Your task to perform on an android device: set the timer Image 0: 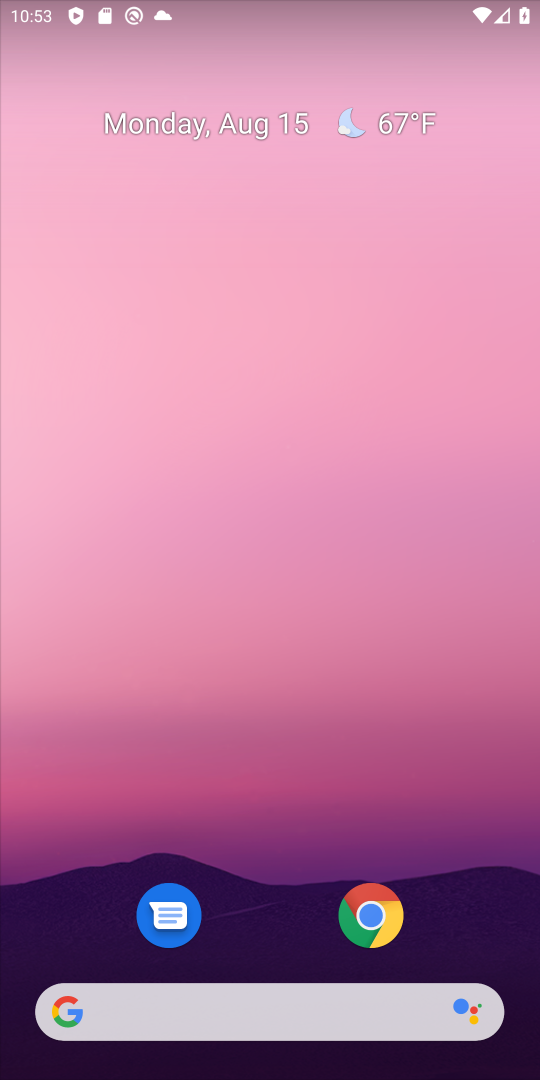
Step 0: drag from (284, 788) to (262, 0)
Your task to perform on an android device: set the timer Image 1: 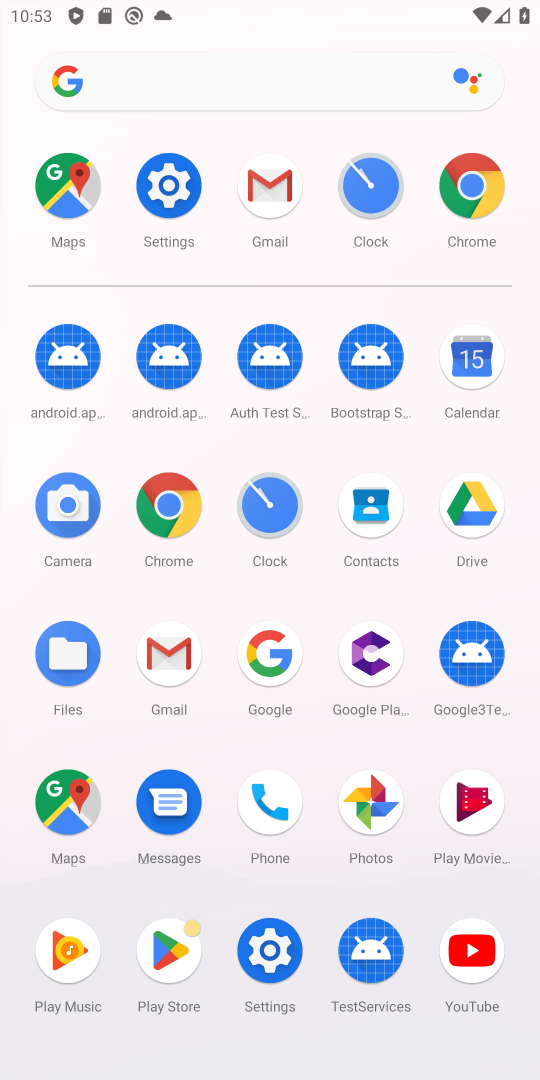
Step 1: click (274, 503)
Your task to perform on an android device: set the timer Image 2: 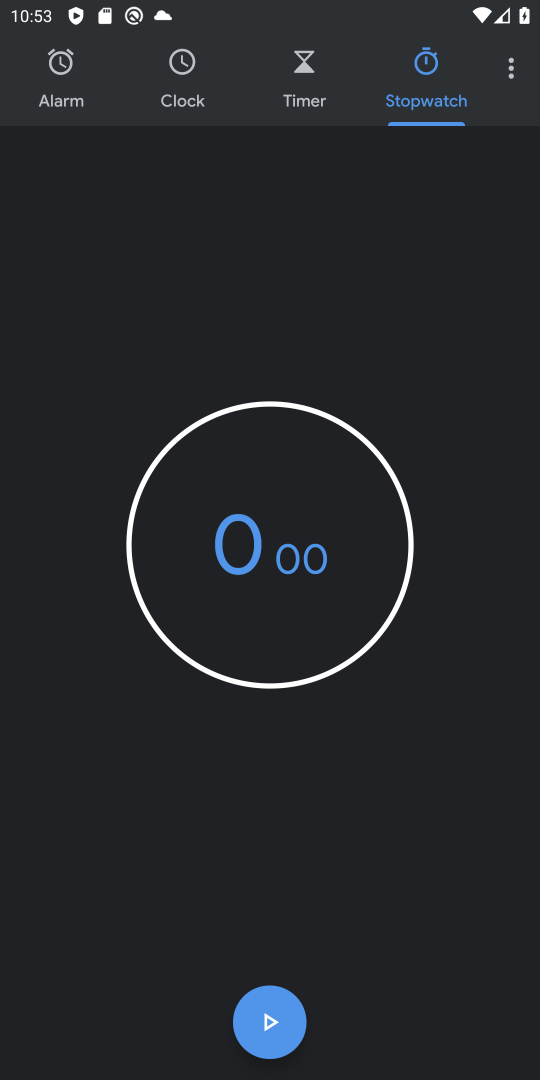
Step 2: click (299, 85)
Your task to perform on an android device: set the timer Image 3: 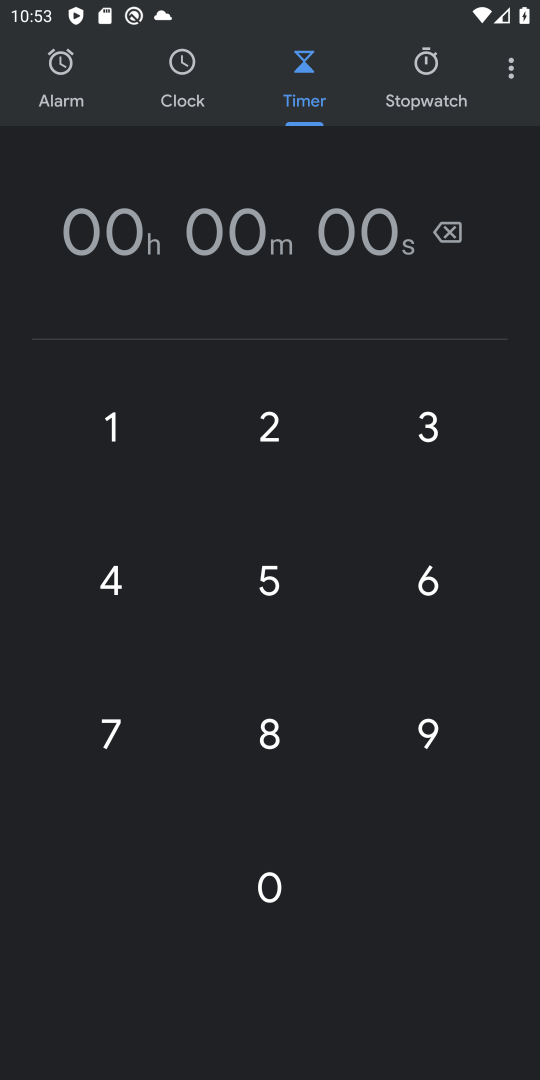
Step 3: click (281, 595)
Your task to perform on an android device: set the timer Image 4: 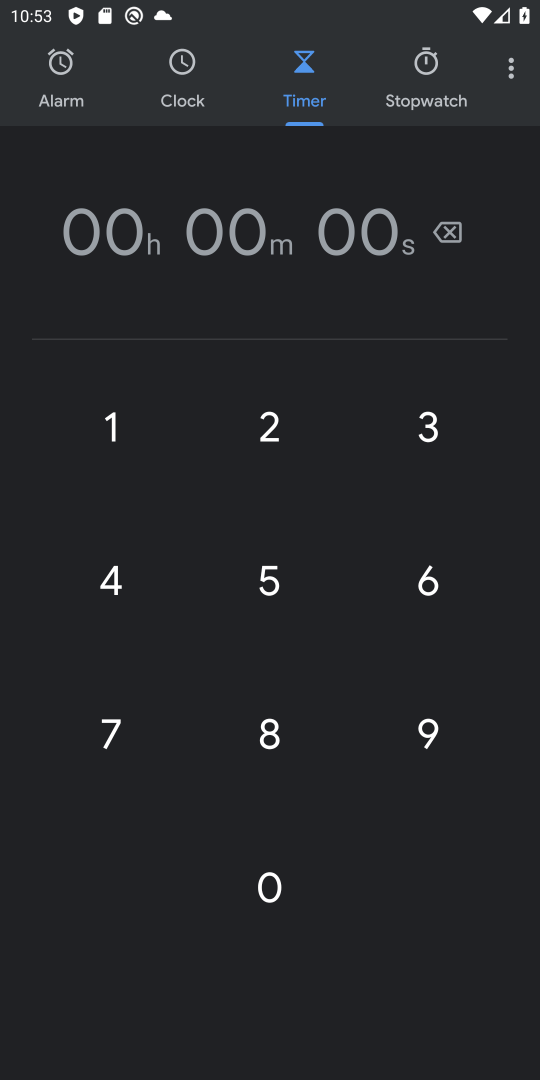
Step 4: click (281, 595)
Your task to perform on an android device: set the timer Image 5: 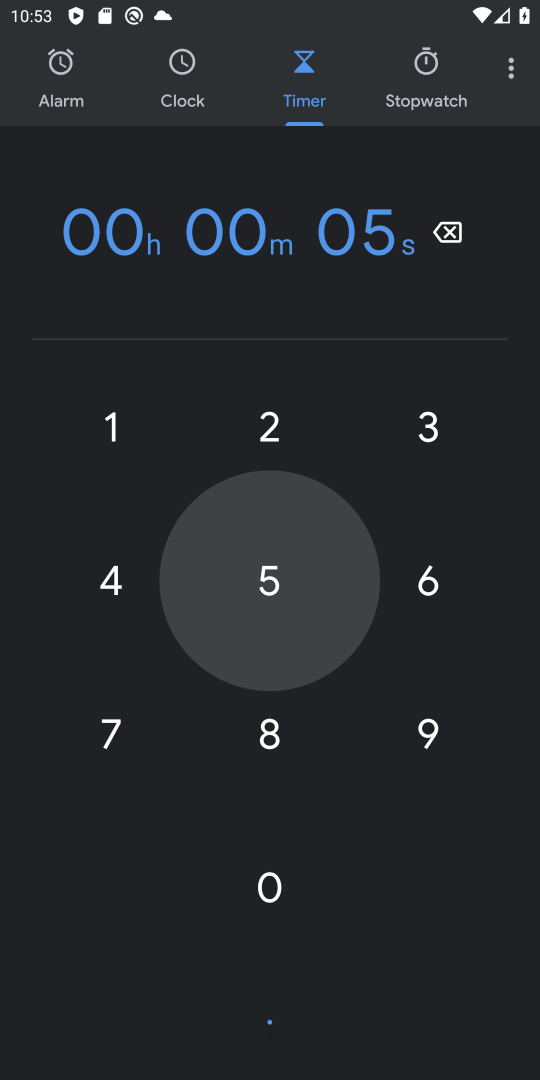
Step 5: click (281, 595)
Your task to perform on an android device: set the timer Image 6: 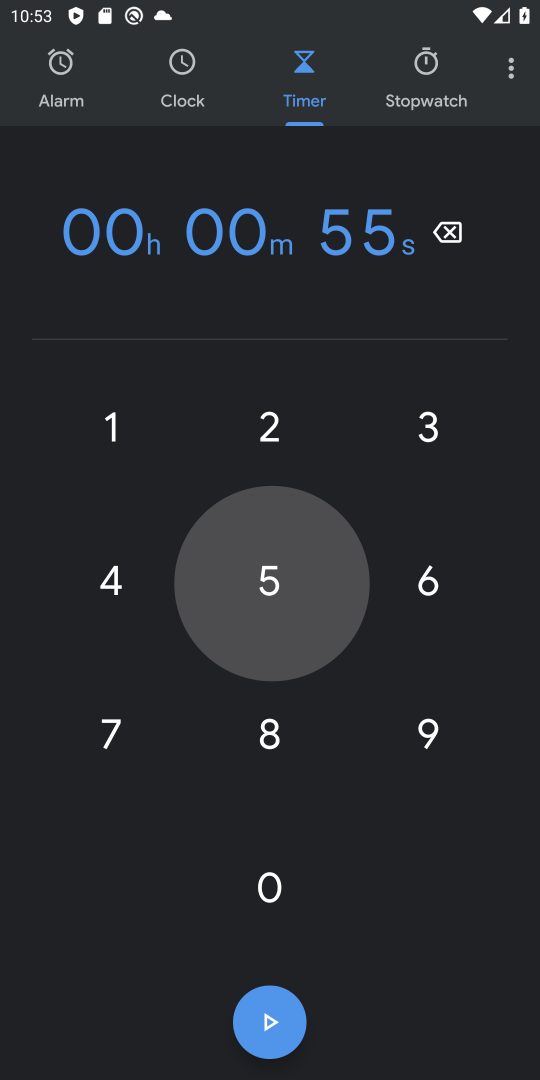
Step 6: click (281, 595)
Your task to perform on an android device: set the timer Image 7: 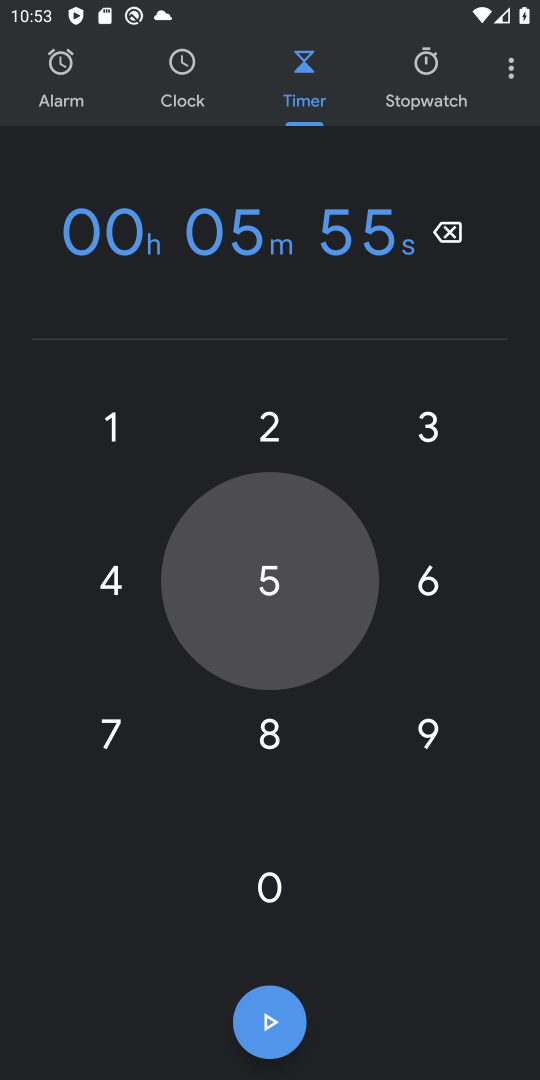
Step 7: click (281, 595)
Your task to perform on an android device: set the timer Image 8: 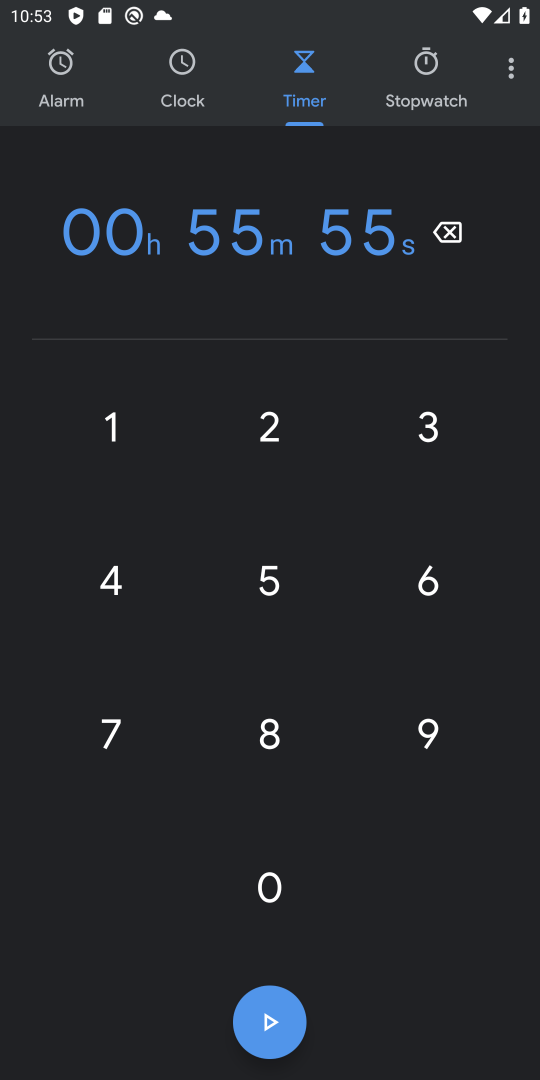
Step 8: click (281, 595)
Your task to perform on an android device: set the timer Image 9: 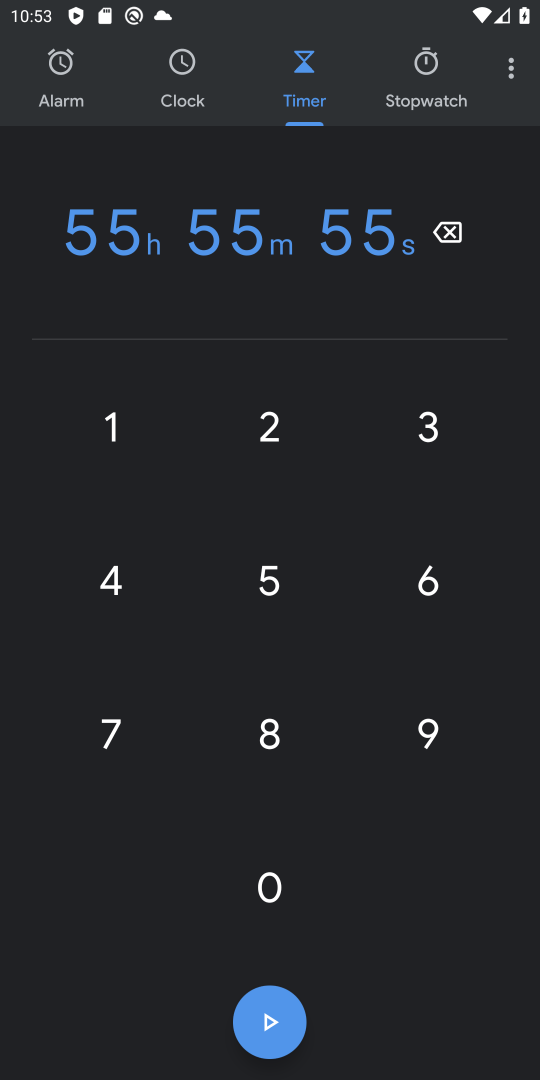
Step 9: click (263, 1013)
Your task to perform on an android device: set the timer Image 10: 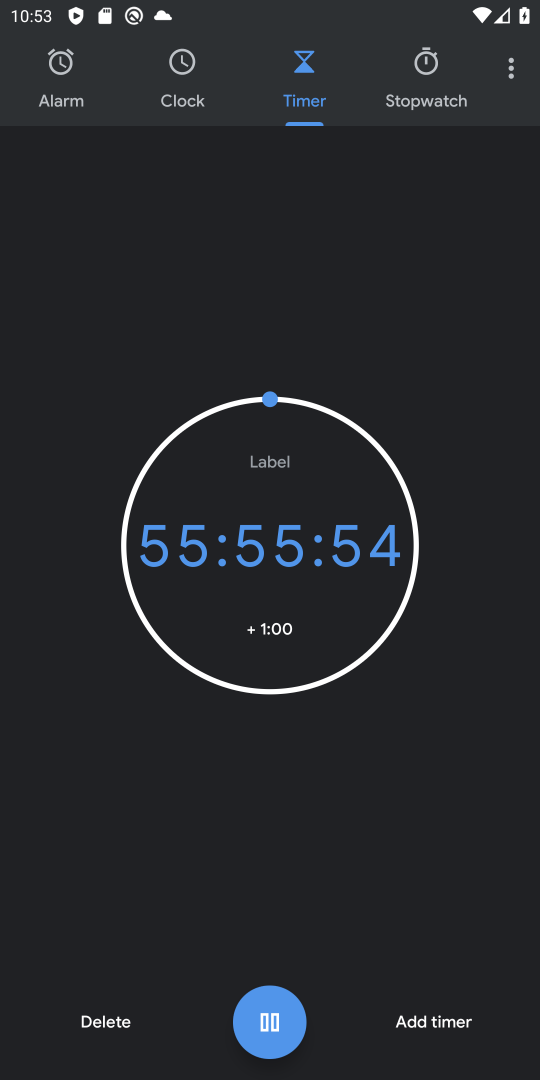
Step 10: task complete